Your task to perform on an android device: Open settings on Google Maps Image 0: 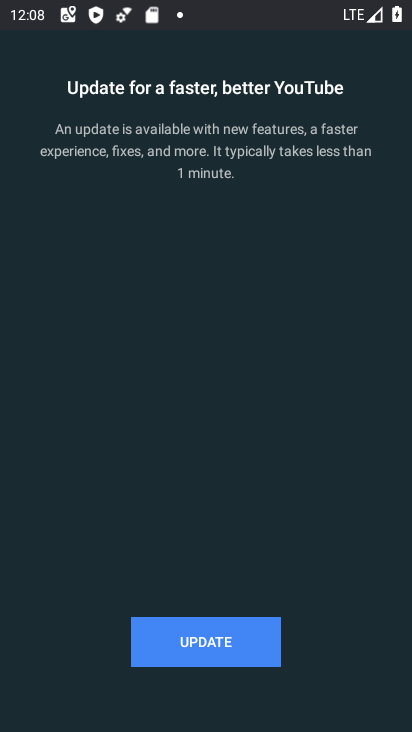
Step 0: press back button
Your task to perform on an android device: Open settings on Google Maps Image 1: 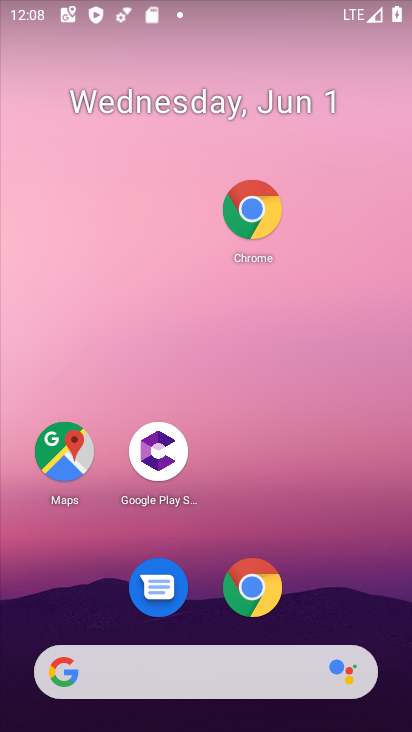
Step 1: click (52, 463)
Your task to perform on an android device: Open settings on Google Maps Image 2: 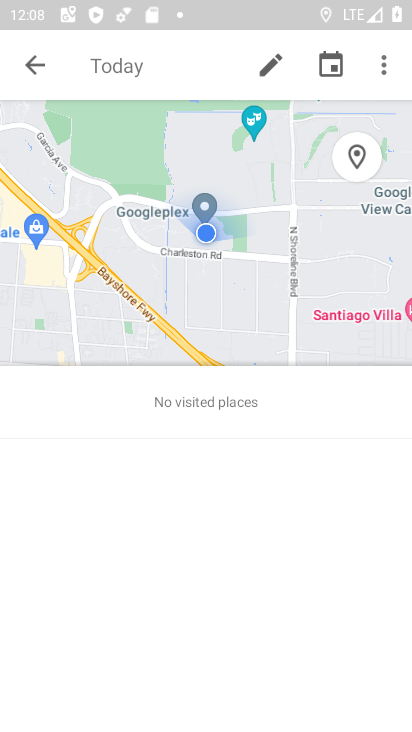
Step 2: click (40, 53)
Your task to perform on an android device: Open settings on Google Maps Image 3: 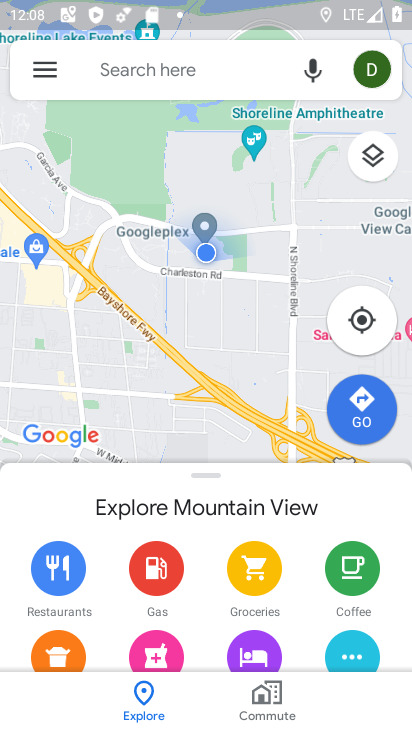
Step 3: click (40, 53)
Your task to perform on an android device: Open settings on Google Maps Image 4: 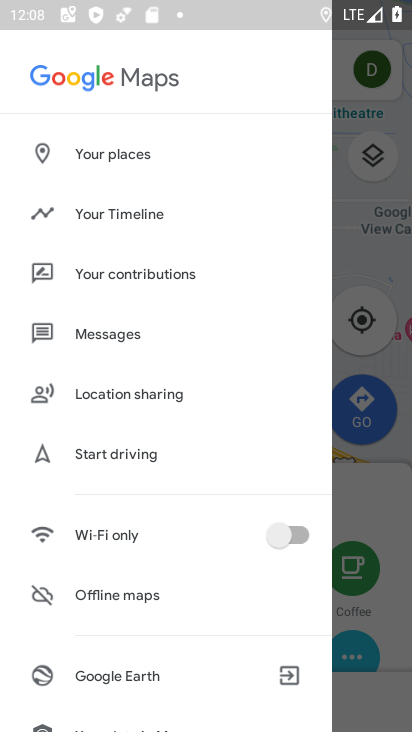
Step 4: drag from (104, 512) to (102, 223)
Your task to perform on an android device: Open settings on Google Maps Image 5: 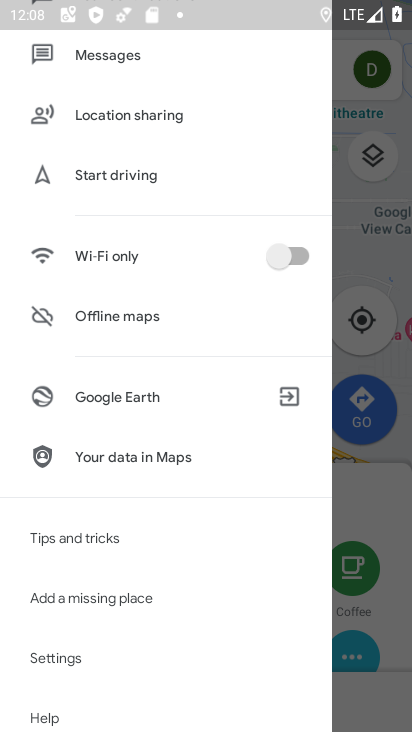
Step 5: click (82, 649)
Your task to perform on an android device: Open settings on Google Maps Image 6: 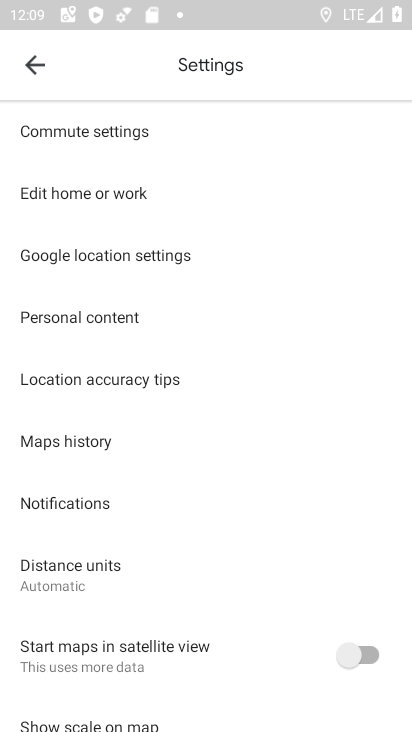
Step 6: task complete